Your task to perform on an android device: change keyboard looks Image 0: 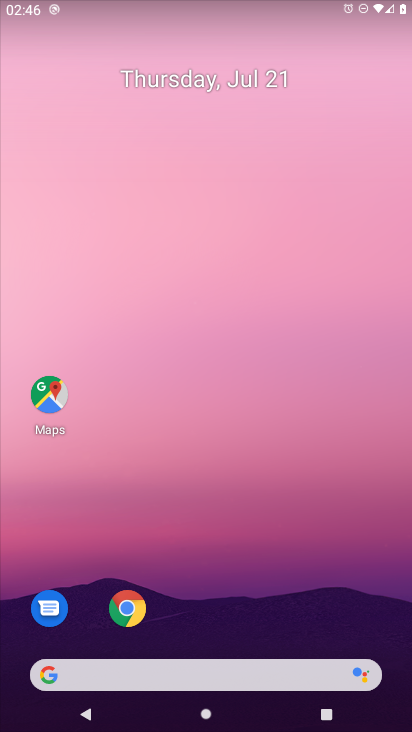
Step 0: press home button
Your task to perform on an android device: change keyboard looks Image 1: 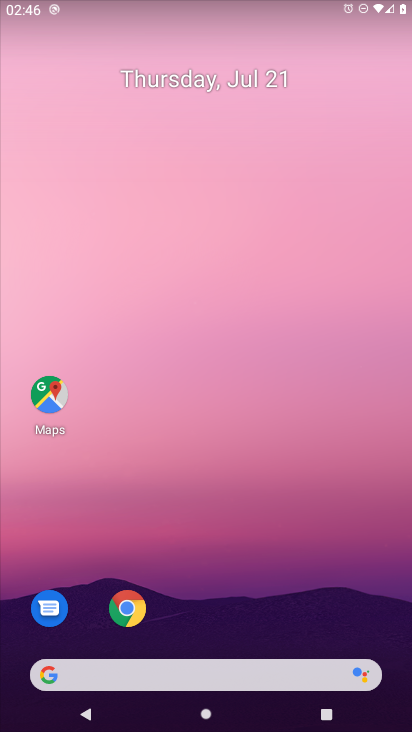
Step 1: drag from (220, 639) to (181, 196)
Your task to perform on an android device: change keyboard looks Image 2: 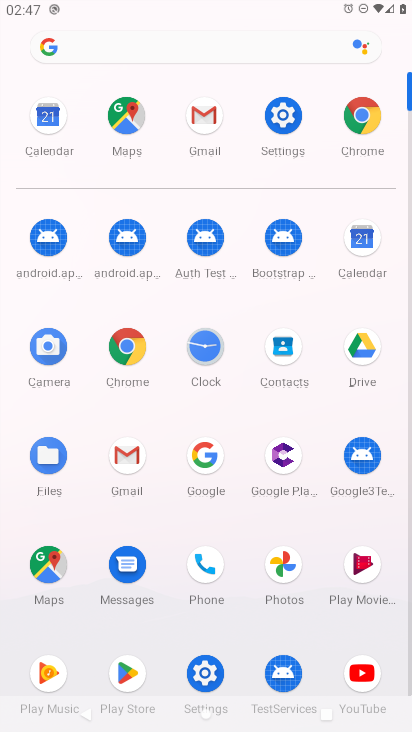
Step 2: click (279, 113)
Your task to perform on an android device: change keyboard looks Image 3: 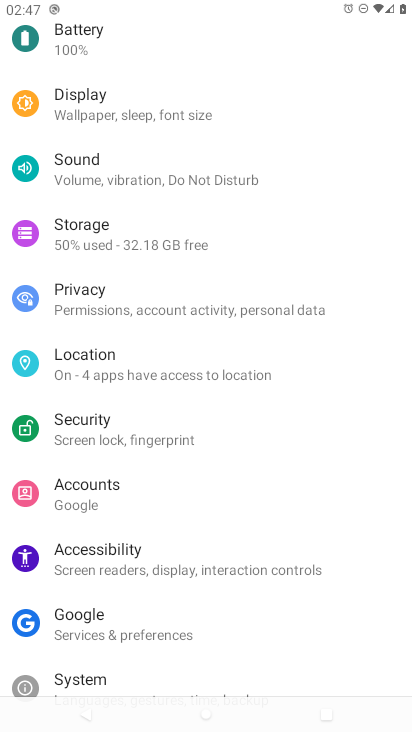
Step 3: click (90, 683)
Your task to perform on an android device: change keyboard looks Image 4: 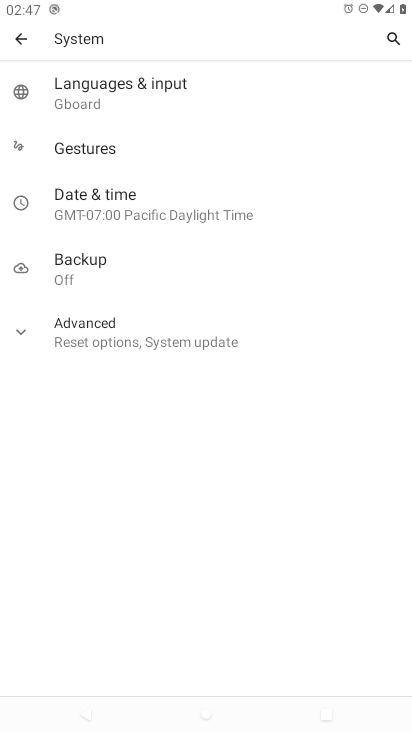
Step 4: click (100, 96)
Your task to perform on an android device: change keyboard looks Image 5: 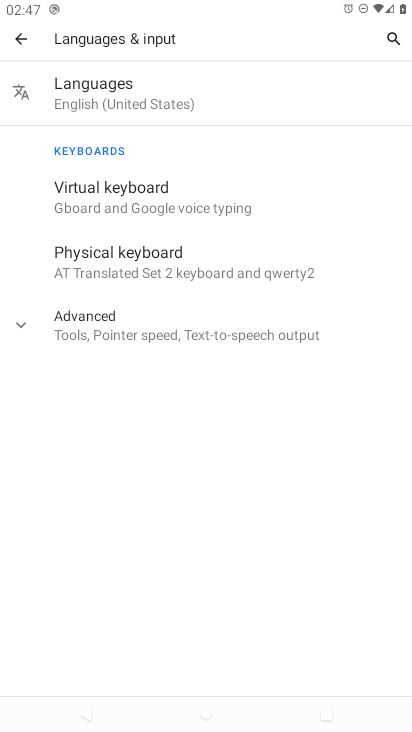
Step 5: click (105, 189)
Your task to perform on an android device: change keyboard looks Image 6: 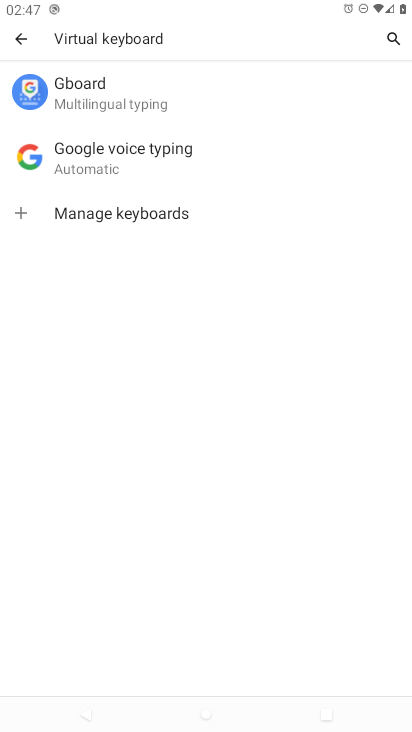
Step 6: click (74, 91)
Your task to perform on an android device: change keyboard looks Image 7: 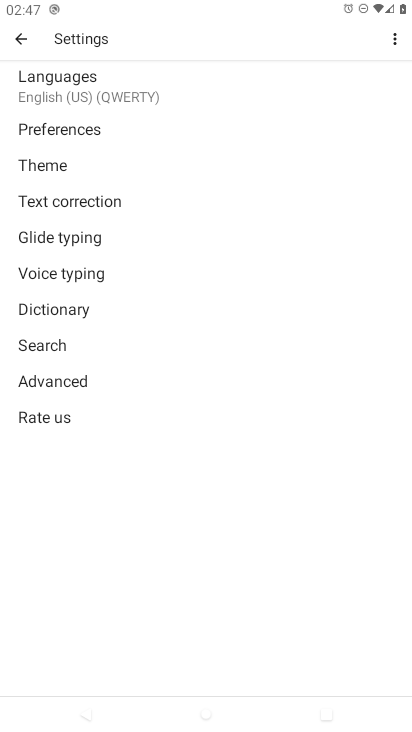
Step 7: click (42, 170)
Your task to perform on an android device: change keyboard looks Image 8: 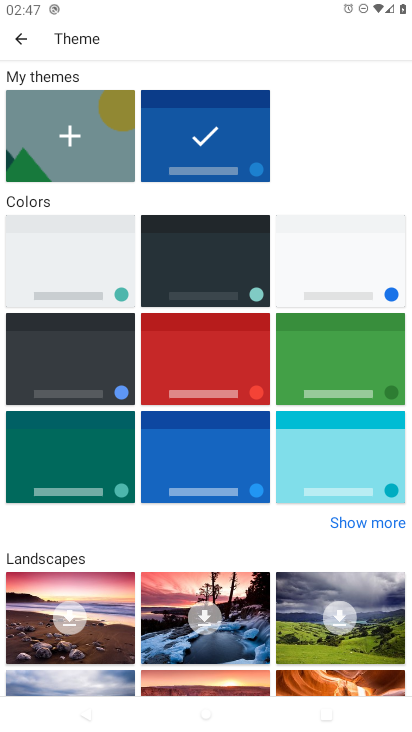
Step 8: click (187, 343)
Your task to perform on an android device: change keyboard looks Image 9: 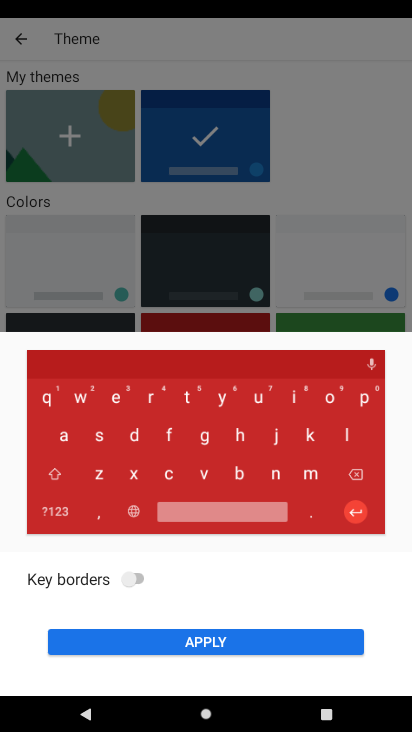
Step 9: click (127, 642)
Your task to perform on an android device: change keyboard looks Image 10: 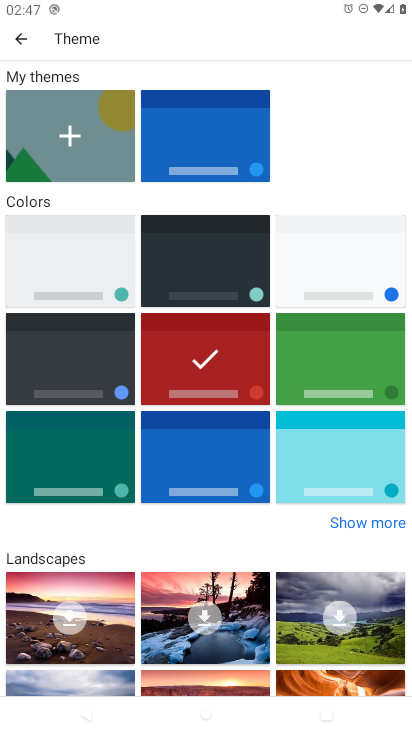
Step 10: task complete